Your task to perform on an android device: uninstall "Paramount+ | Peak Streaming" Image 0: 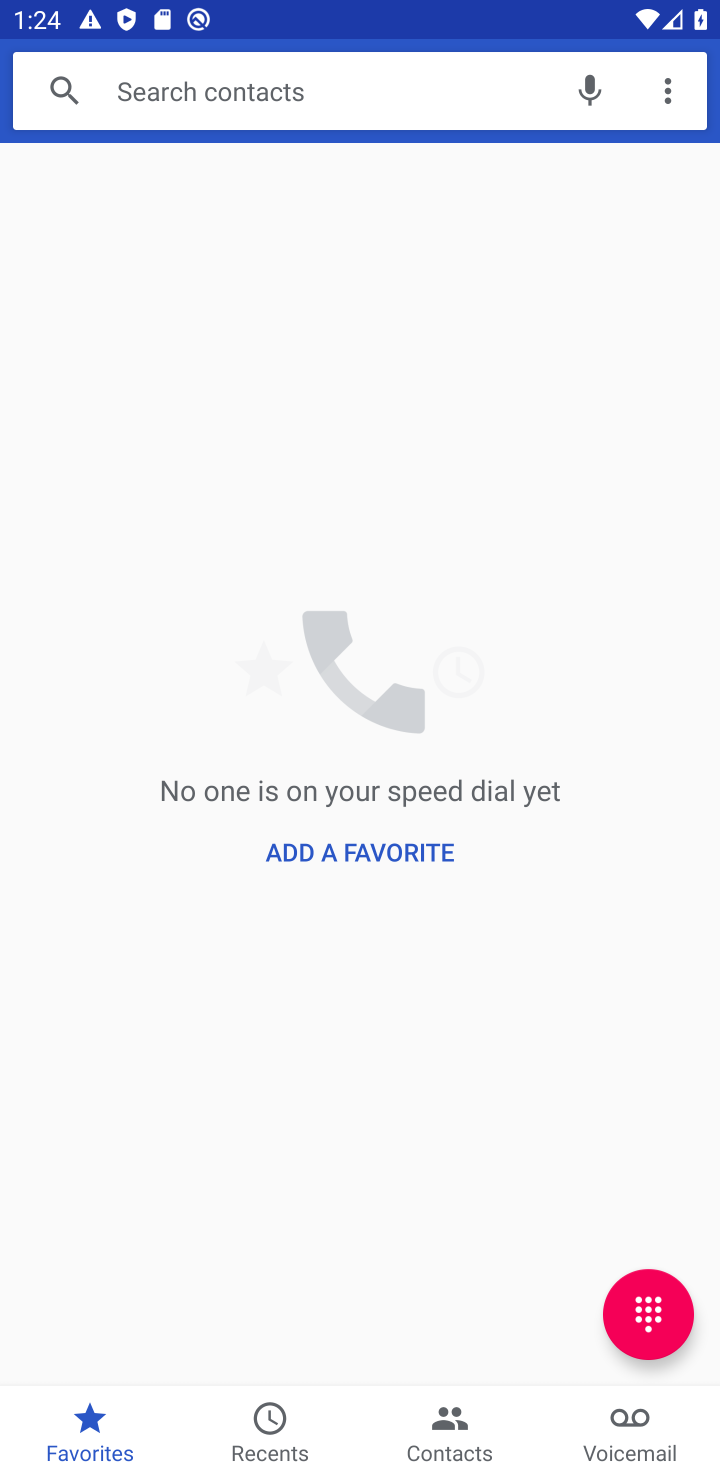
Step 0: press home button
Your task to perform on an android device: uninstall "Paramount+ | Peak Streaming" Image 1: 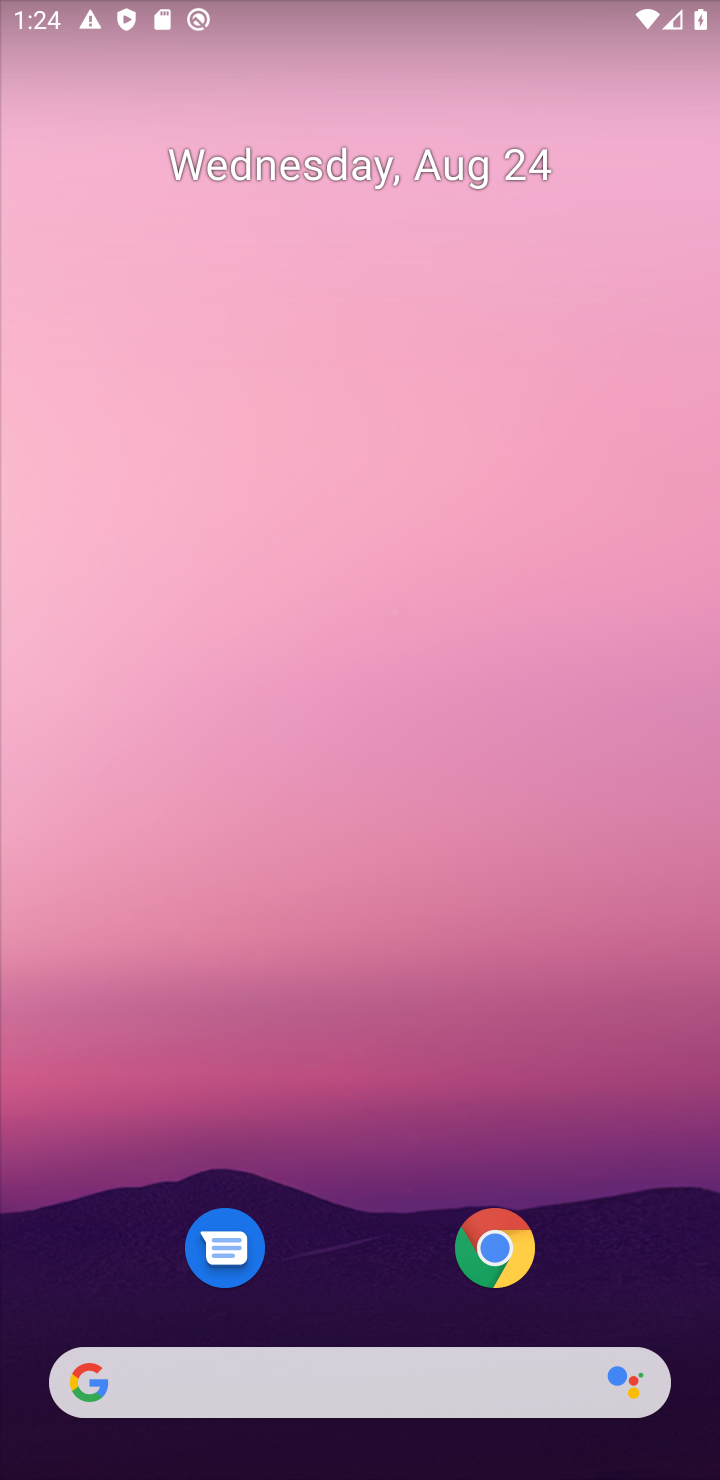
Step 1: drag from (326, 1190) to (441, 415)
Your task to perform on an android device: uninstall "Paramount+ | Peak Streaming" Image 2: 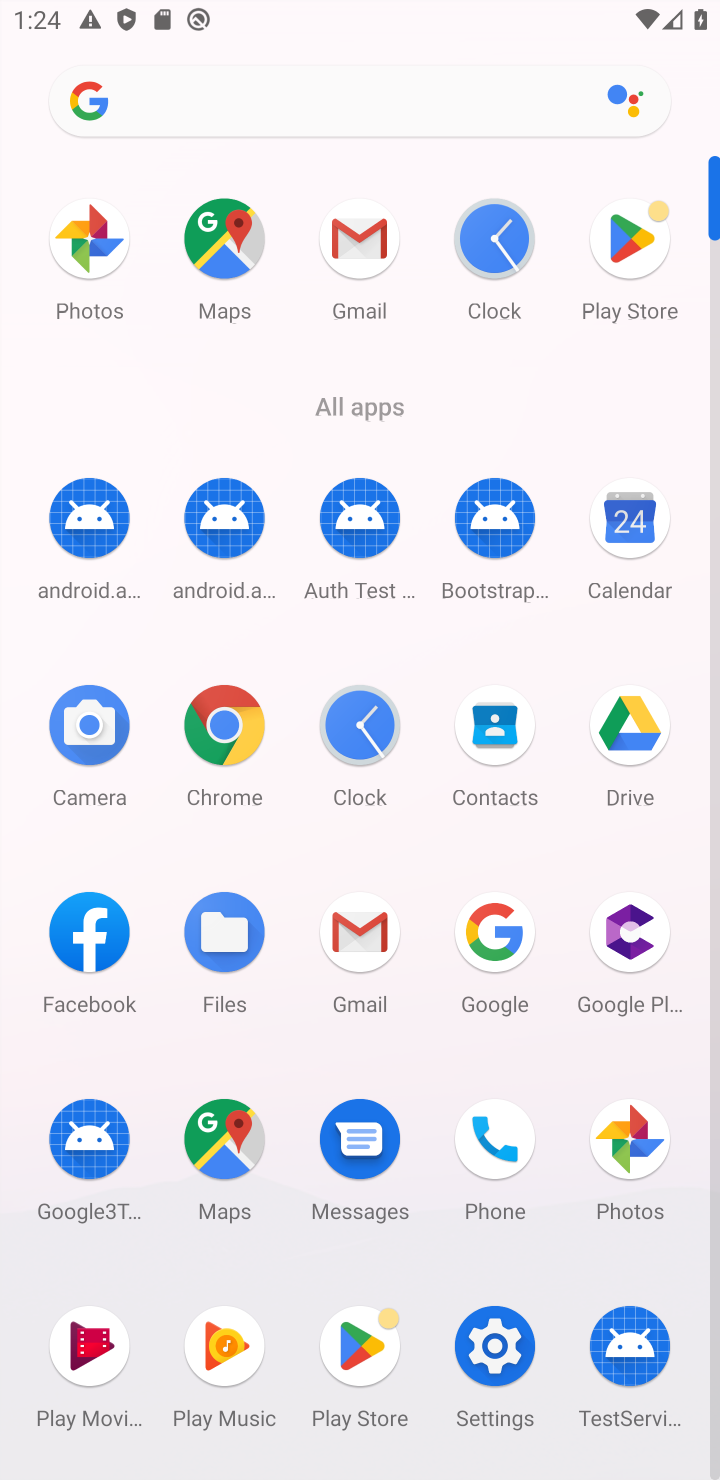
Step 2: click (605, 224)
Your task to perform on an android device: uninstall "Paramount+ | Peak Streaming" Image 3: 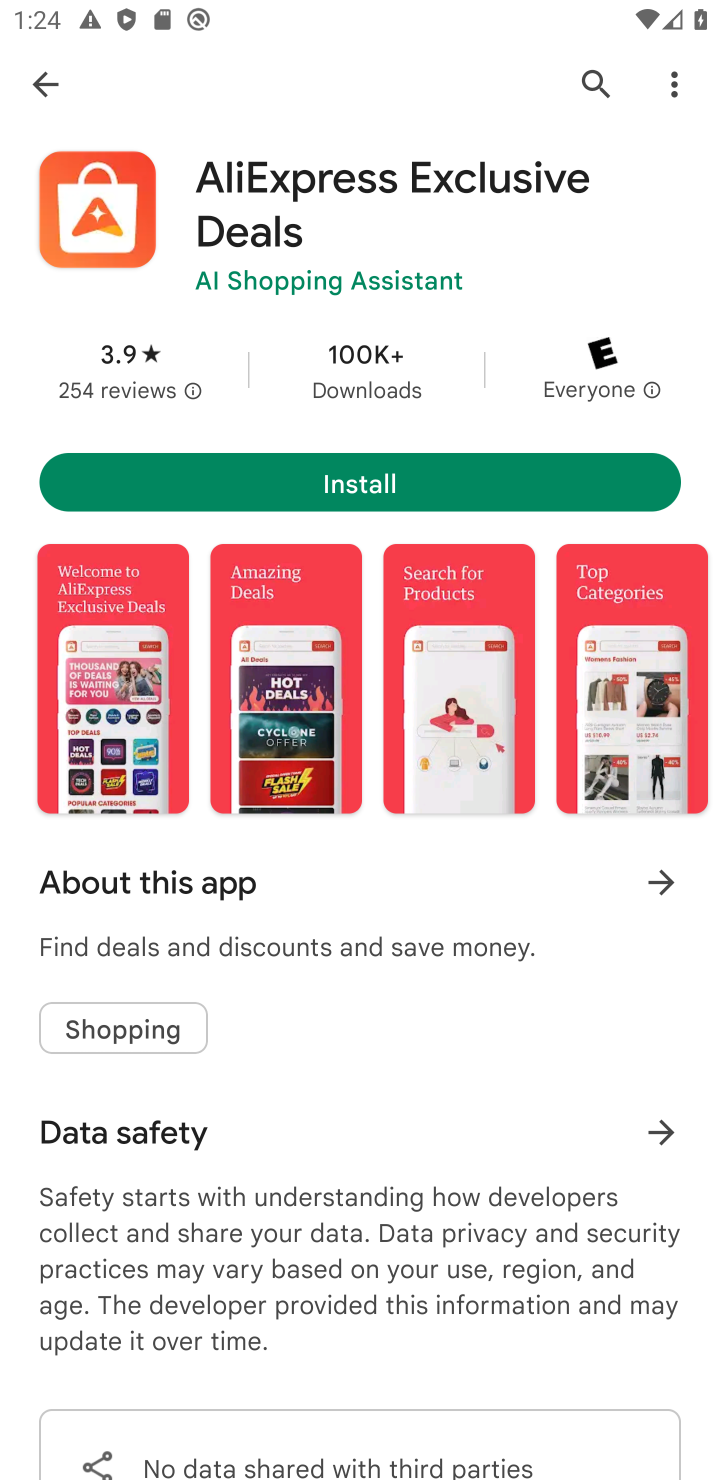
Step 3: click (67, 87)
Your task to perform on an android device: uninstall "Paramount+ | Peak Streaming" Image 4: 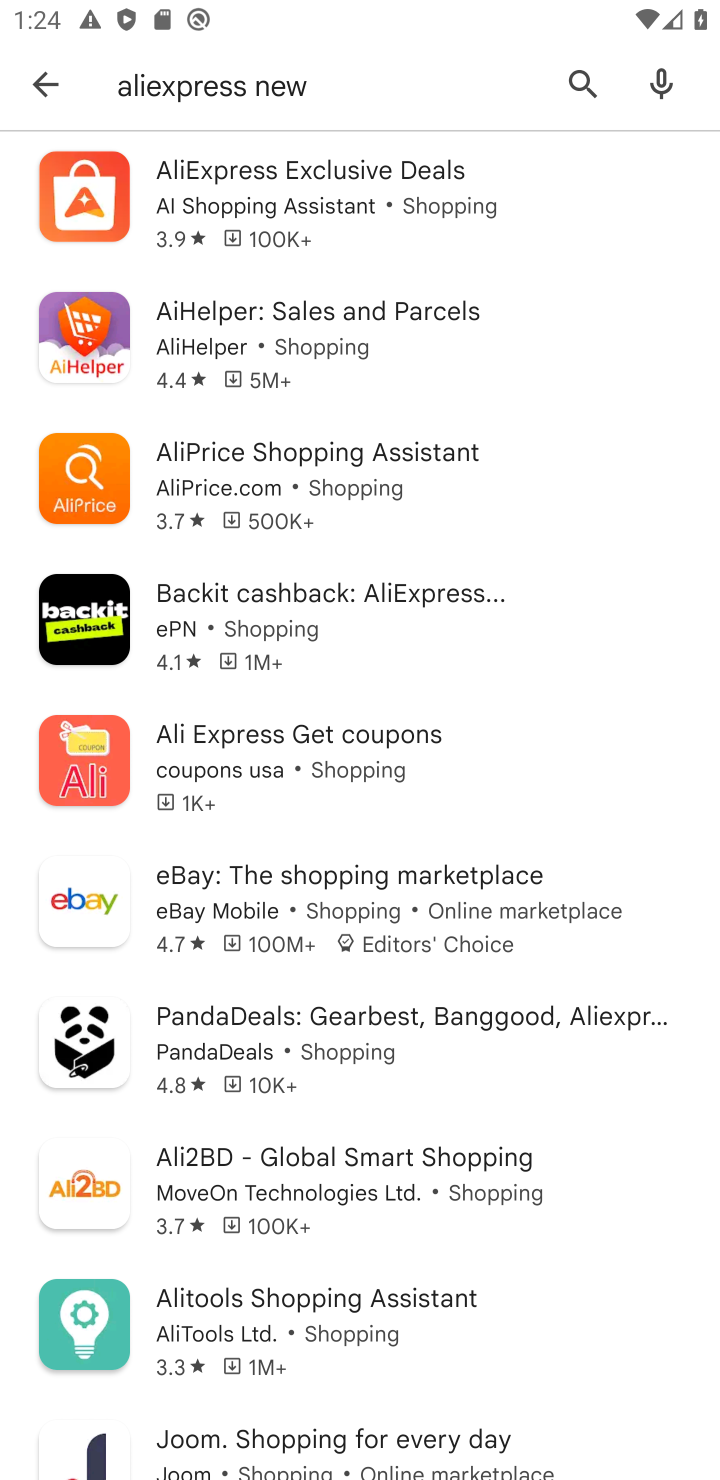
Step 4: click (55, 67)
Your task to perform on an android device: uninstall "Paramount+ | Peak Streaming" Image 5: 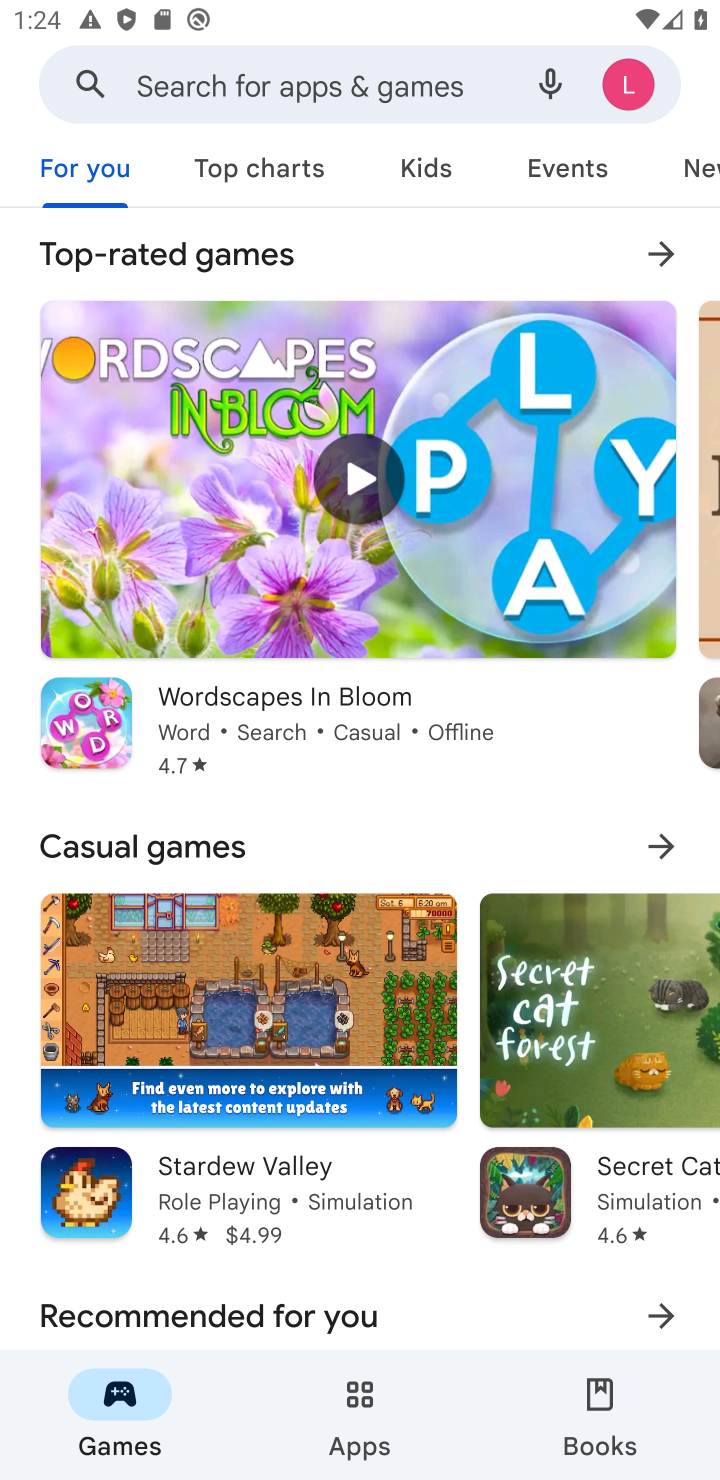
Step 5: click (346, 78)
Your task to perform on an android device: uninstall "Paramount+ | Peak Streaming" Image 6: 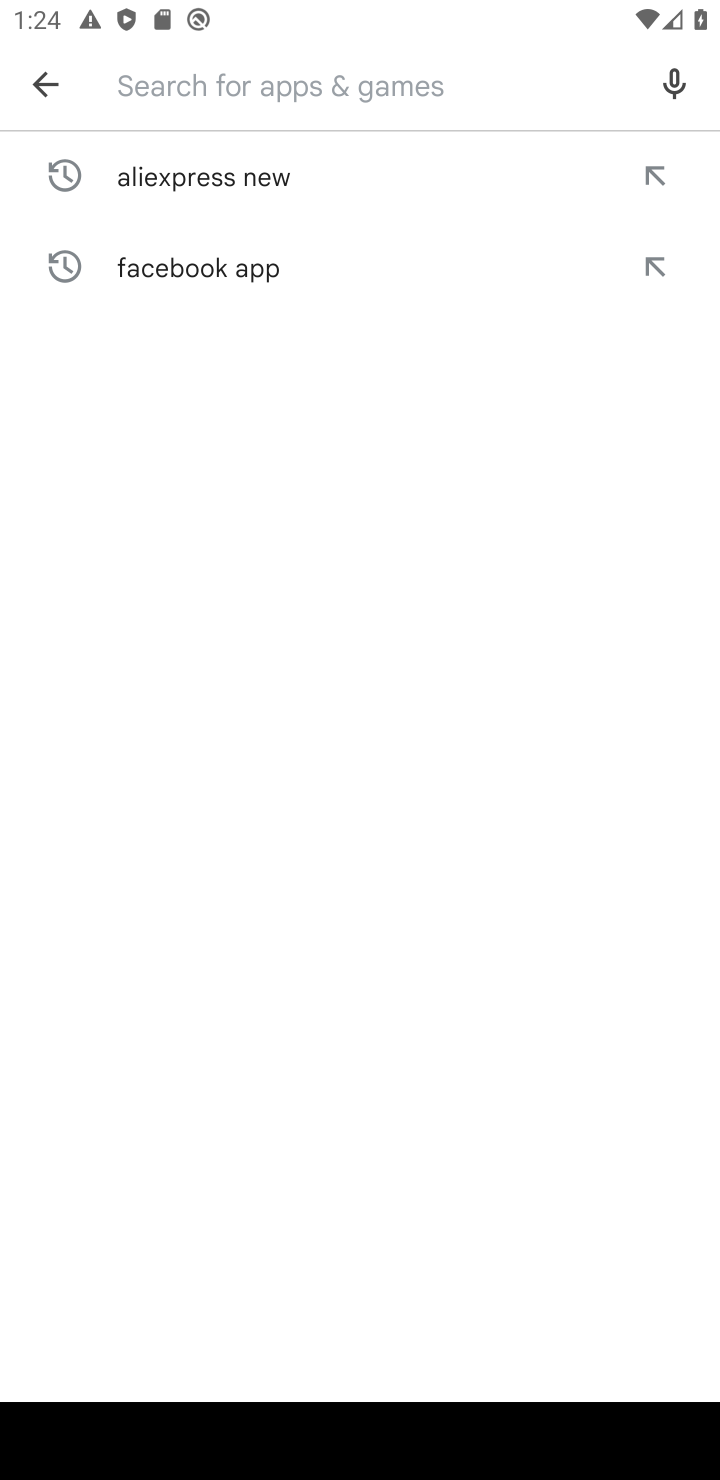
Step 6: type "Paramount+ "
Your task to perform on an android device: uninstall "Paramount+ | Peak Streaming" Image 7: 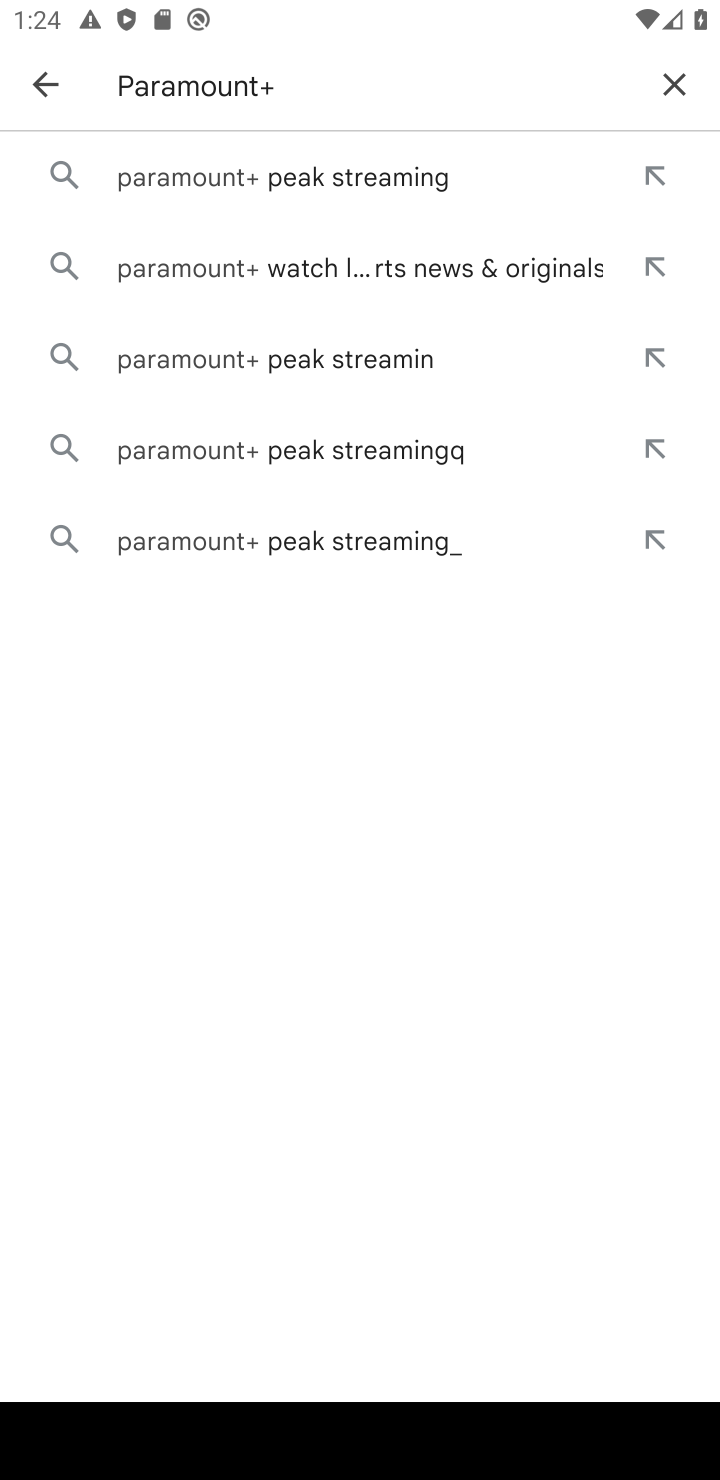
Step 7: click (279, 178)
Your task to perform on an android device: uninstall "Paramount+ | Peak Streaming" Image 8: 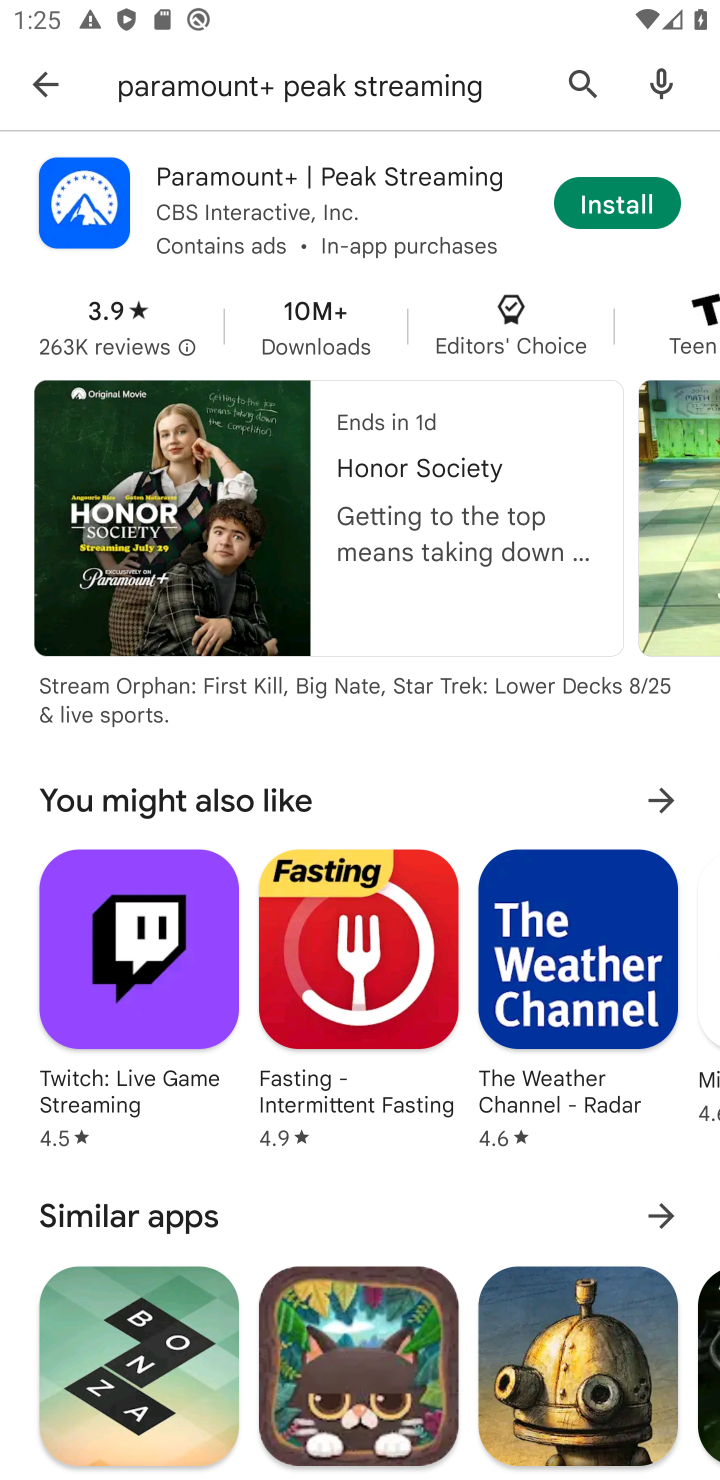
Step 8: task complete